Your task to perform on an android device: toggle data saver in the chrome app Image 0: 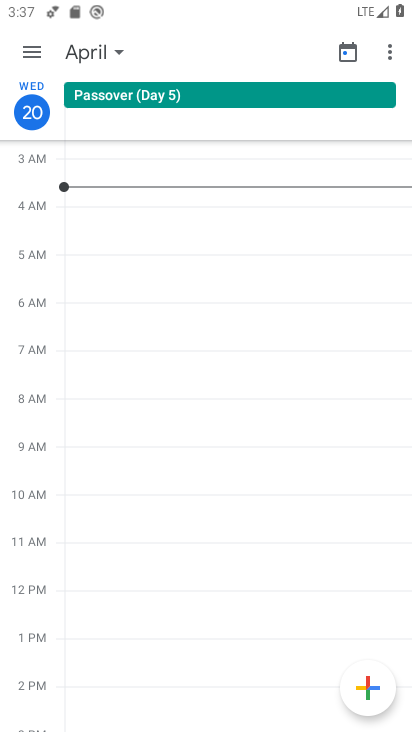
Step 0: press home button
Your task to perform on an android device: toggle data saver in the chrome app Image 1: 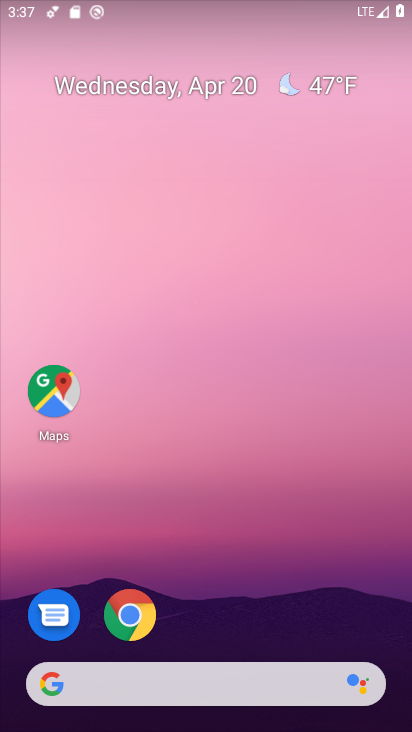
Step 1: click (142, 612)
Your task to perform on an android device: toggle data saver in the chrome app Image 2: 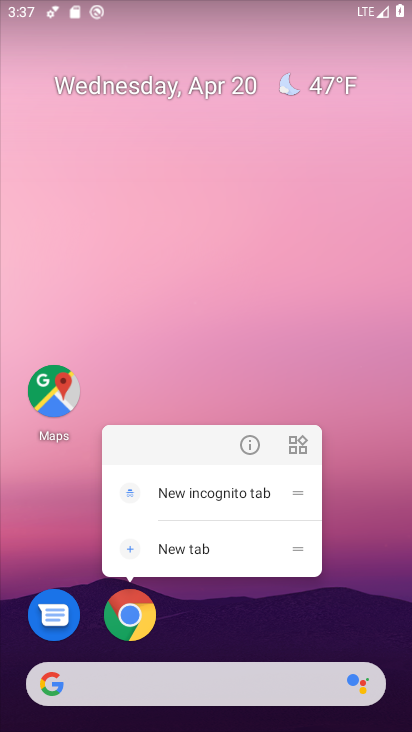
Step 2: click (124, 622)
Your task to perform on an android device: toggle data saver in the chrome app Image 3: 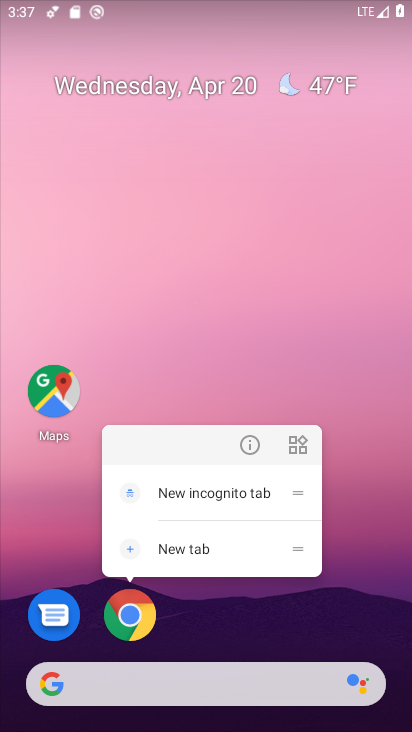
Step 3: click (131, 601)
Your task to perform on an android device: toggle data saver in the chrome app Image 4: 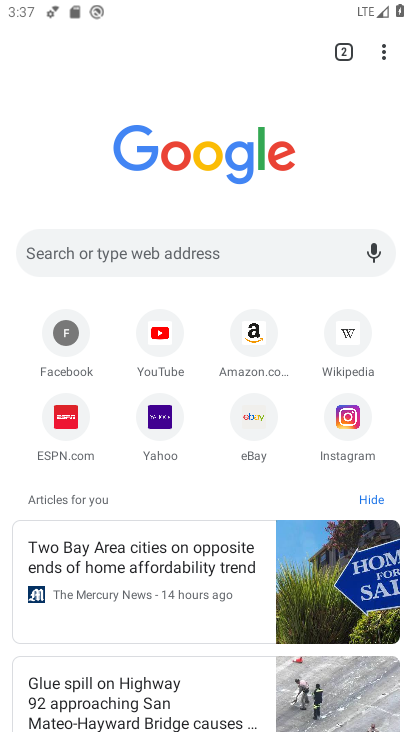
Step 4: drag from (384, 50) to (225, 489)
Your task to perform on an android device: toggle data saver in the chrome app Image 5: 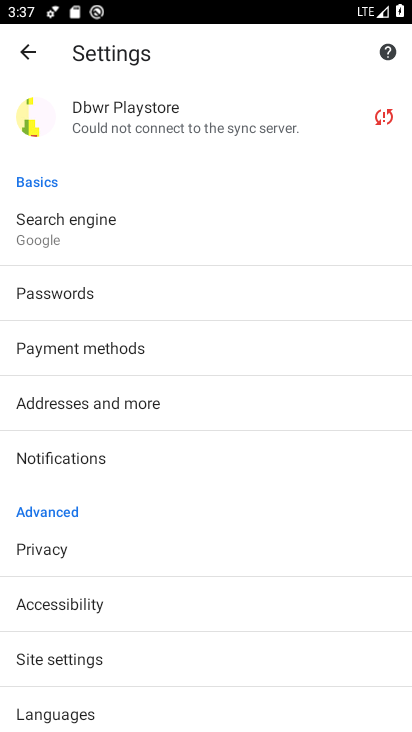
Step 5: drag from (142, 689) to (168, 445)
Your task to perform on an android device: toggle data saver in the chrome app Image 6: 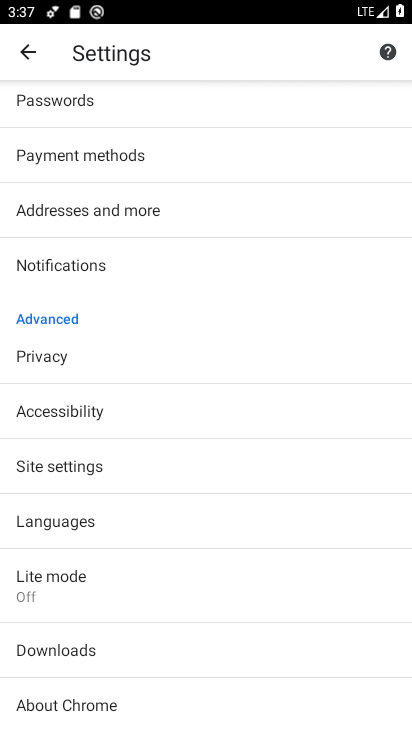
Step 6: click (75, 571)
Your task to perform on an android device: toggle data saver in the chrome app Image 7: 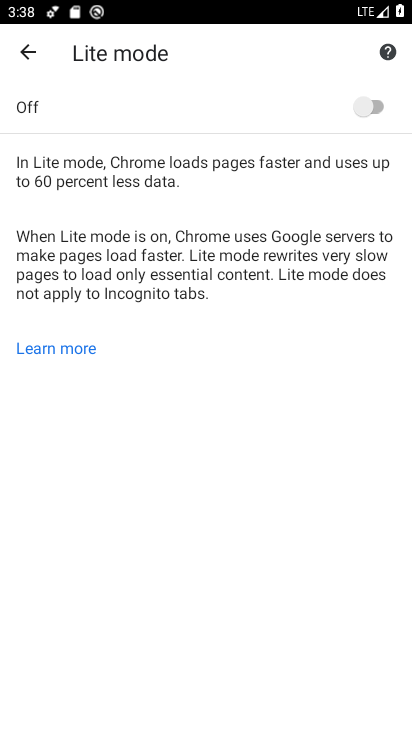
Step 7: click (382, 102)
Your task to perform on an android device: toggle data saver in the chrome app Image 8: 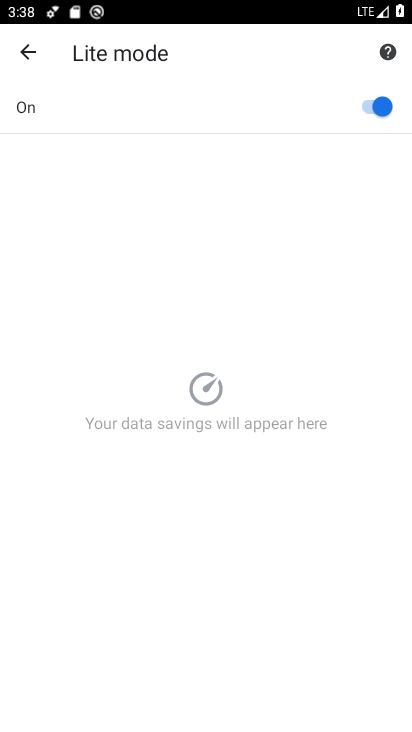
Step 8: task complete